Your task to perform on an android device: see creations saved in the google photos Image 0: 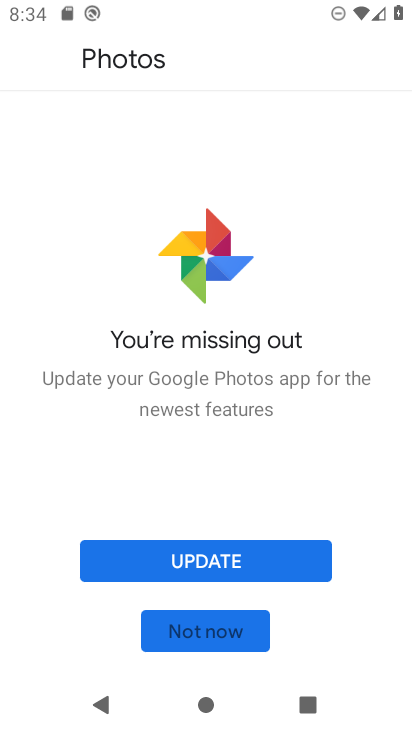
Step 0: press home button
Your task to perform on an android device: see creations saved in the google photos Image 1: 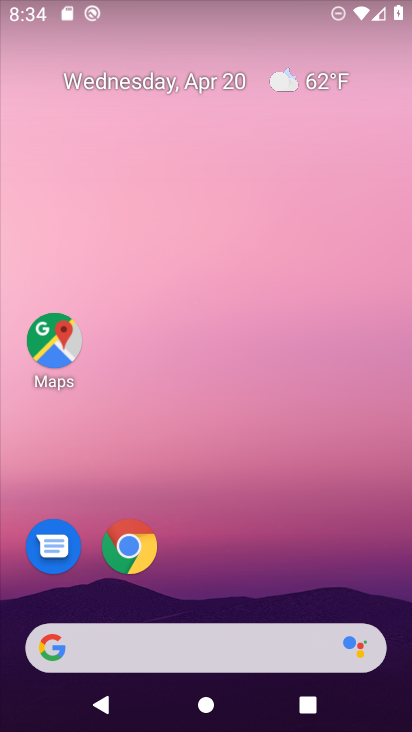
Step 1: drag from (268, 543) to (326, 69)
Your task to perform on an android device: see creations saved in the google photos Image 2: 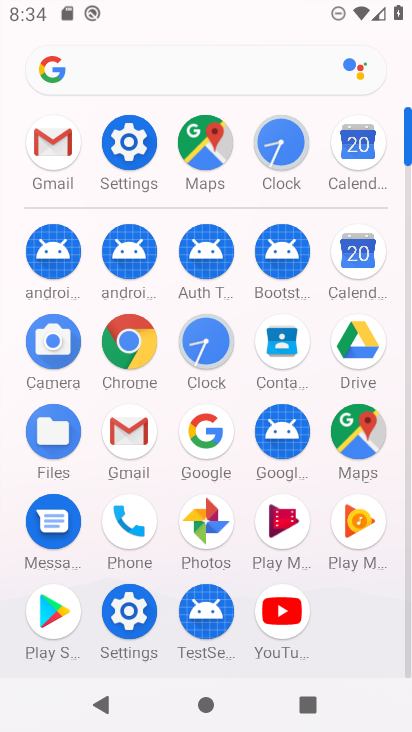
Step 2: click (200, 513)
Your task to perform on an android device: see creations saved in the google photos Image 3: 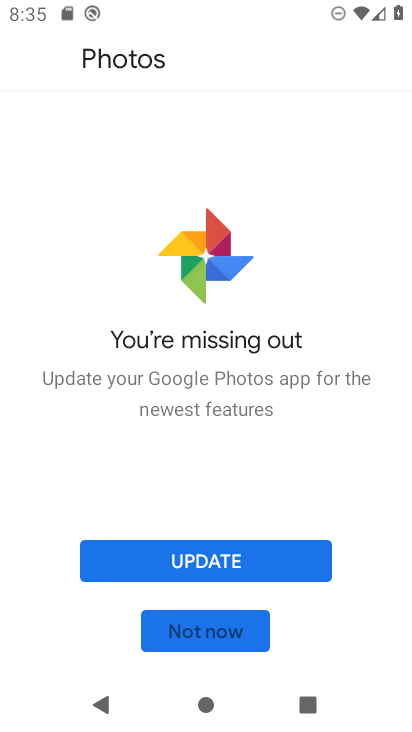
Step 3: click (227, 554)
Your task to perform on an android device: see creations saved in the google photos Image 4: 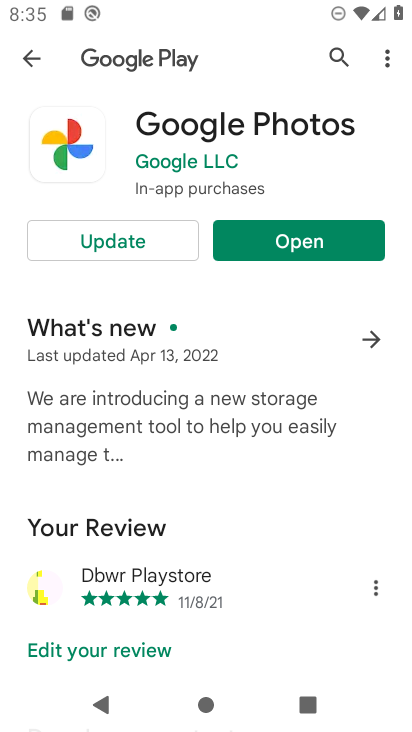
Step 4: click (163, 241)
Your task to perform on an android device: see creations saved in the google photos Image 5: 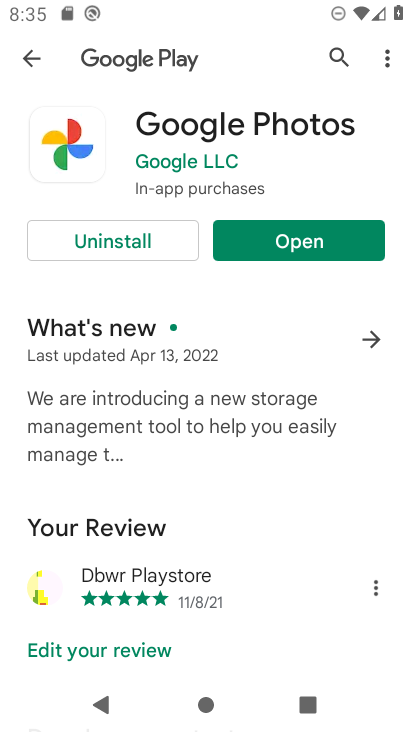
Step 5: click (244, 232)
Your task to perform on an android device: see creations saved in the google photos Image 6: 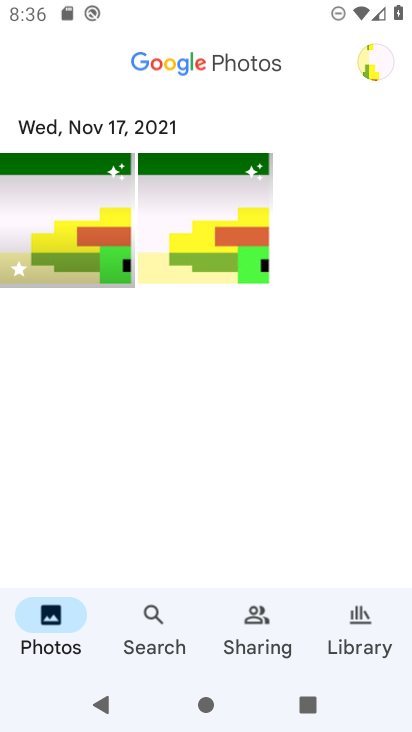
Step 6: click (145, 613)
Your task to perform on an android device: see creations saved in the google photos Image 7: 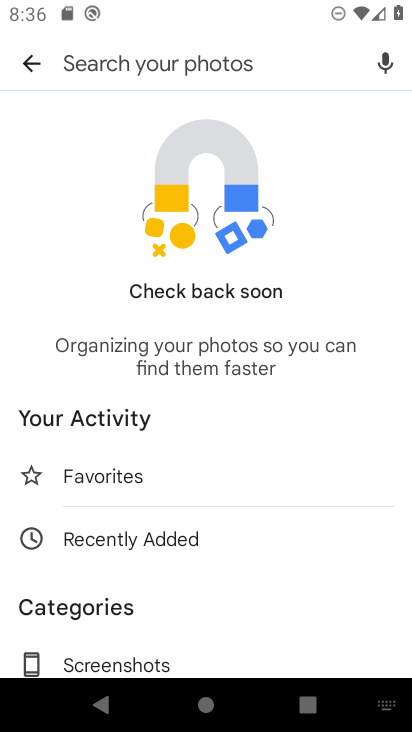
Step 7: drag from (215, 561) to (265, 232)
Your task to perform on an android device: see creations saved in the google photos Image 8: 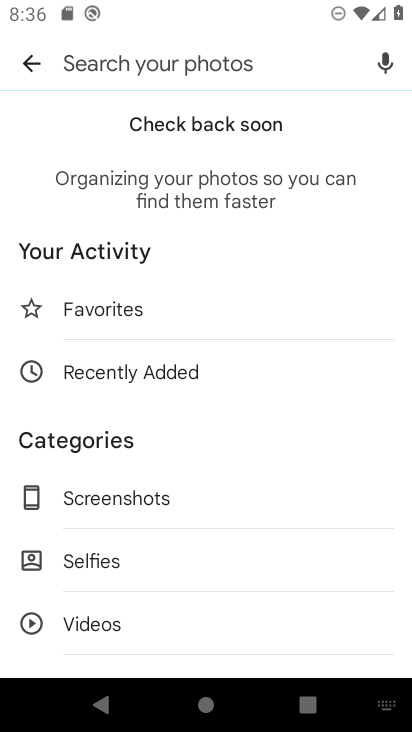
Step 8: drag from (194, 589) to (219, 245)
Your task to perform on an android device: see creations saved in the google photos Image 9: 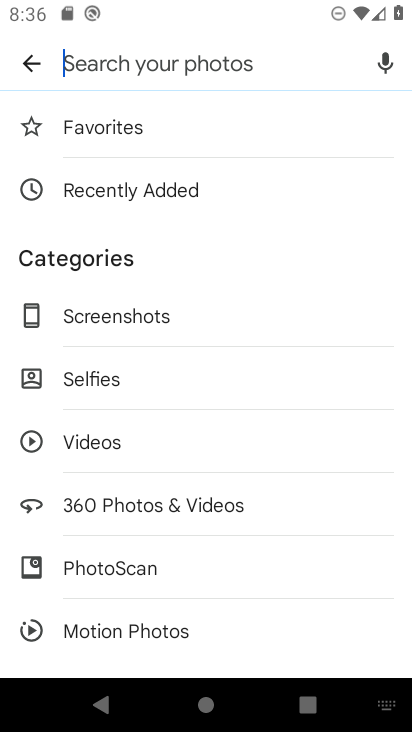
Step 9: drag from (197, 567) to (212, 244)
Your task to perform on an android device: see creations saved in the google photos Image 10: 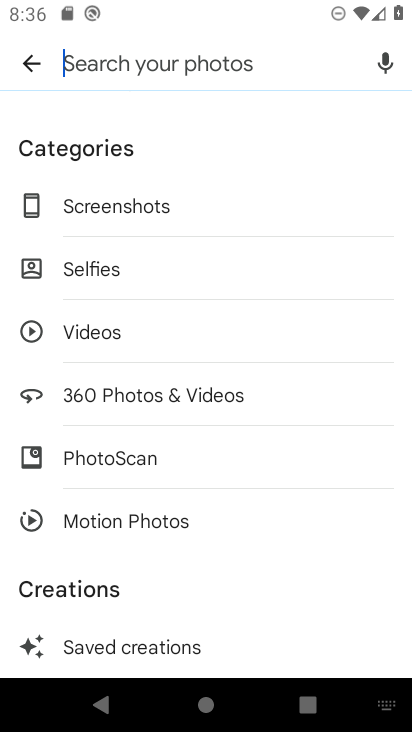
Step 10: click (150, 643)
Your task to perform on an android device: see creations saved in the google photos Image 11: 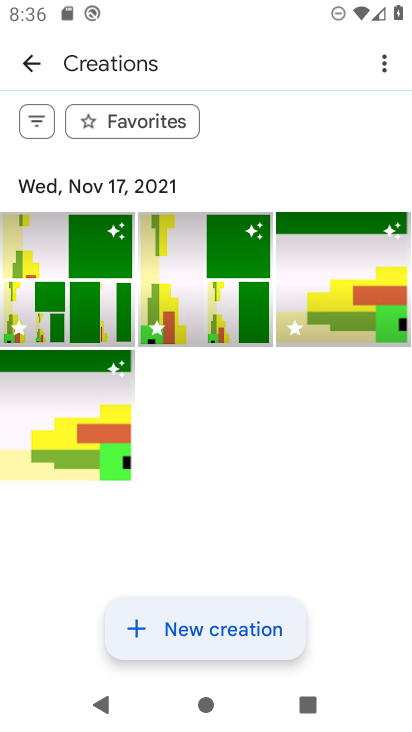
Step 11: task complete